Your task to perform on an android device: Is it going to rain tomorrow? Image 0: 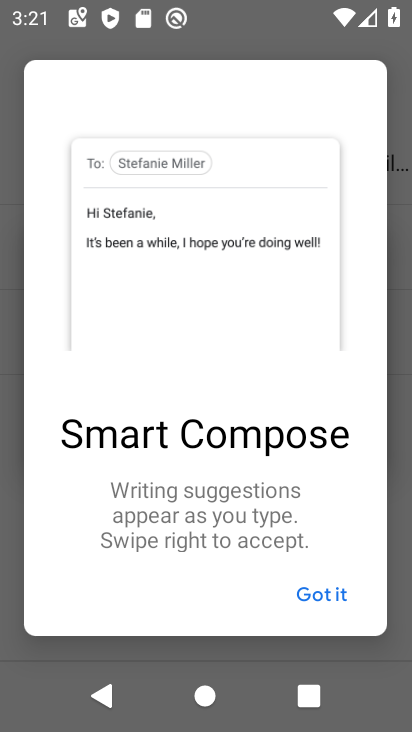
Step 0: press back button
Your task to perform on an android device: Is it going to rain tomorrow? Image 1: 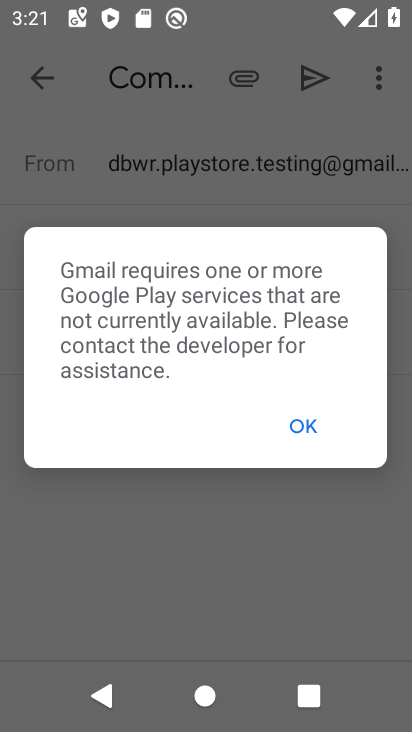
Step 1: press home button
Your task to perform on an android device: Is it going to rain tomorrow? Image 2: 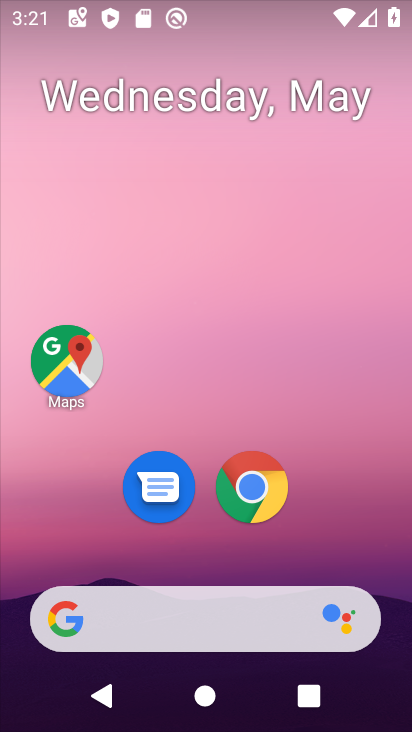
Step 2: drag from (332, 551) to (232, 51)
Your task to perform on an android device: Is it going to rain tomorrow? Image 3: 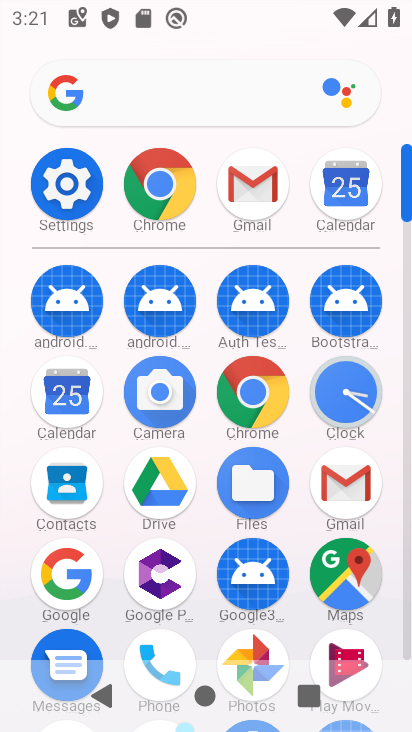
Step 3: click (150, 182)
Your task to perform on an android device: Is it going to rain tomorrow? Image 4: 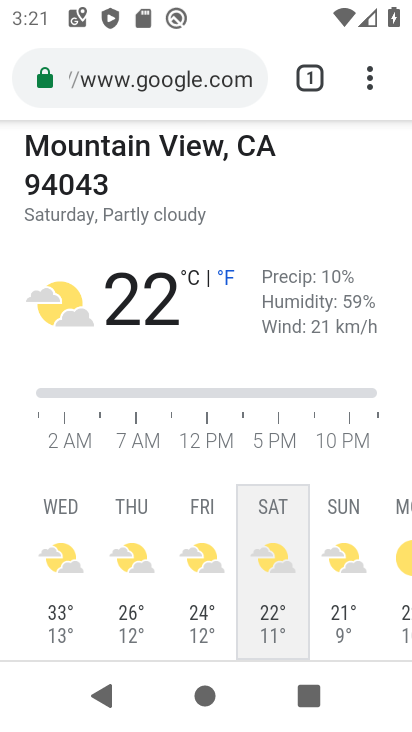
Step 4: click (174, 66)
Your task to perform on an android device: Is it going to rain tomorrow? Image 5: 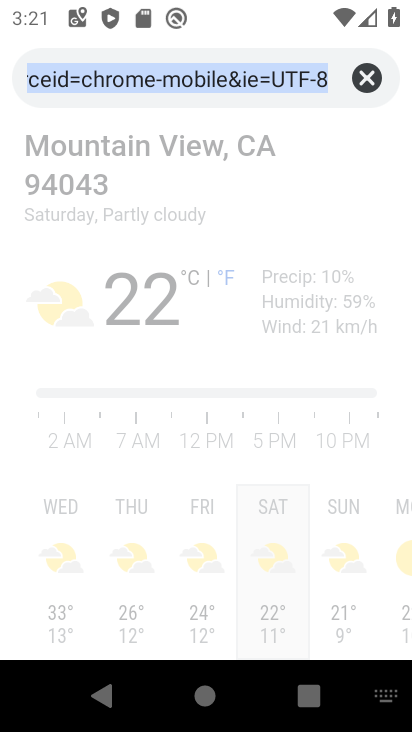
Step 5: click (370, 73)
Your task to perform on an android device: Is it going to rain tomorrow? Image 6: 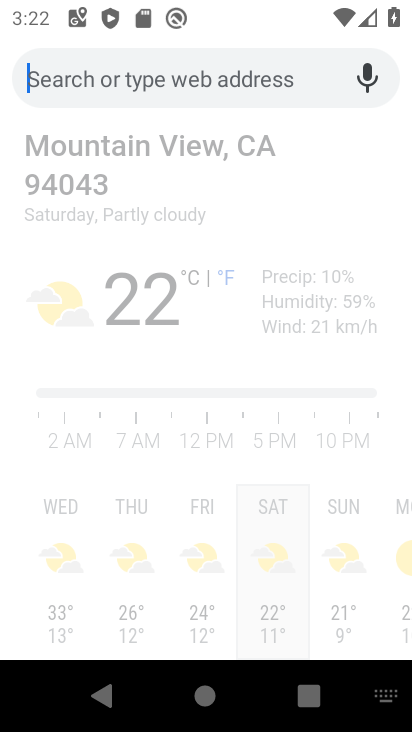
Step 6: type "Is it going to rain tomorrow?"
Your task to perform on an android device: Is it going to rain tomorrow? Image 7: 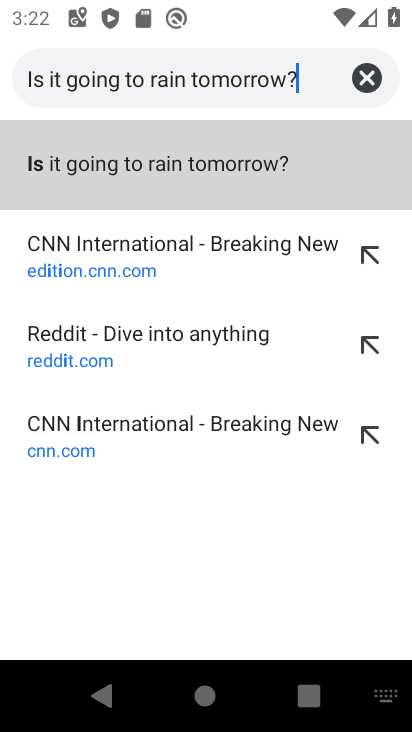
Step 7: type ""
Your task to perform on an android device: Is it going to rain tomorrow? Image 8: 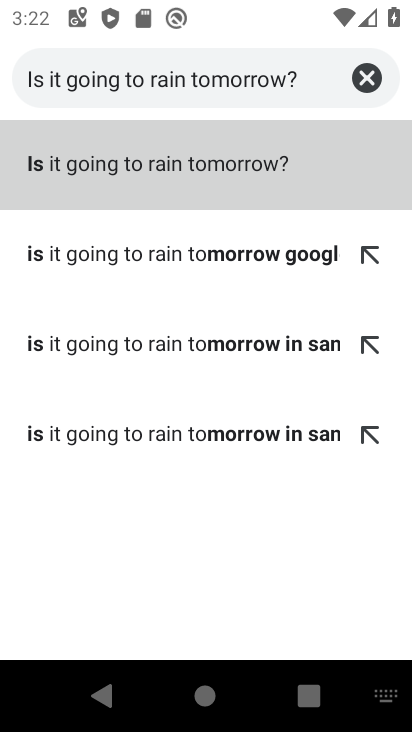
Step 8: click (139, 184)
Your task to perform on an android device: Is it going to rain tomorrow? Image 9: 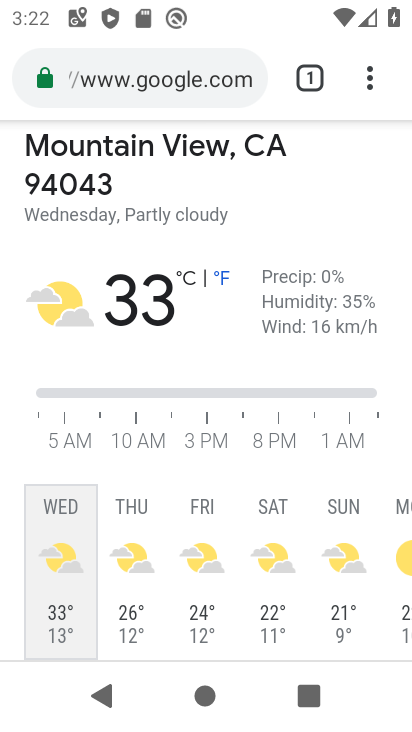
Step 9: task complete